Your task to perform on an android device: change timer sound Image 0: 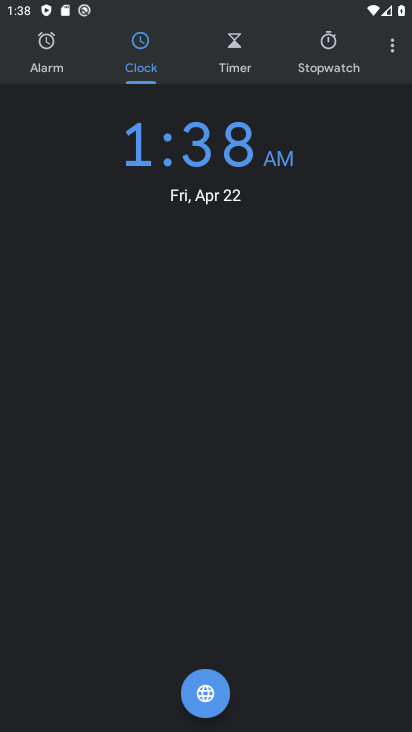
Step 0: click (395, 41)
Your task to perform on an android device: change timer sound Image 1: 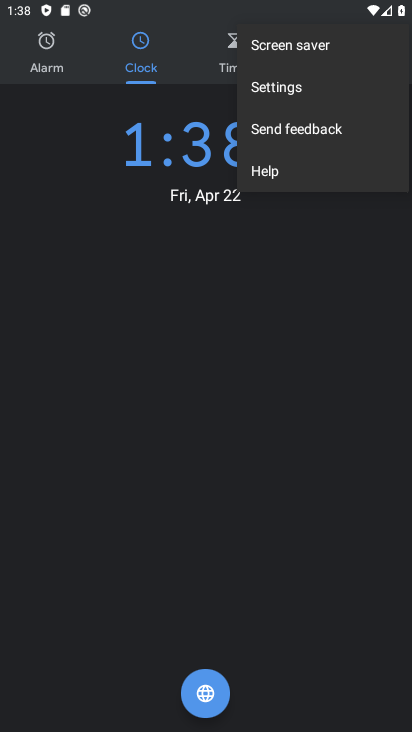
Step 1: click (294, 94)
Your task to perform on an android device: change timer sound Image 2: 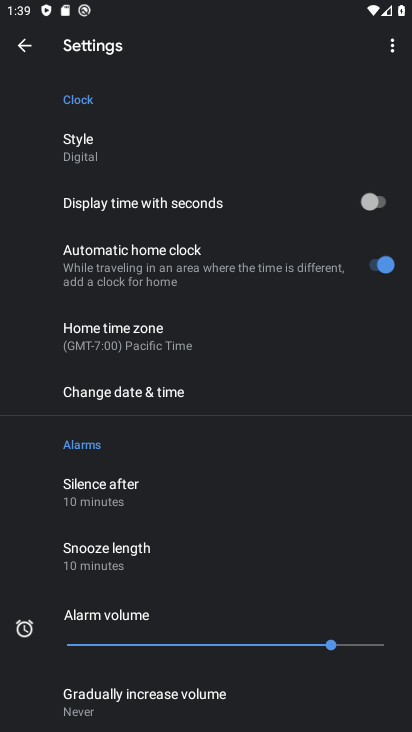
Step 2: drag from (156, 615) to (185, 357)
Your task to perform on an android device: change timer sound Image 3: 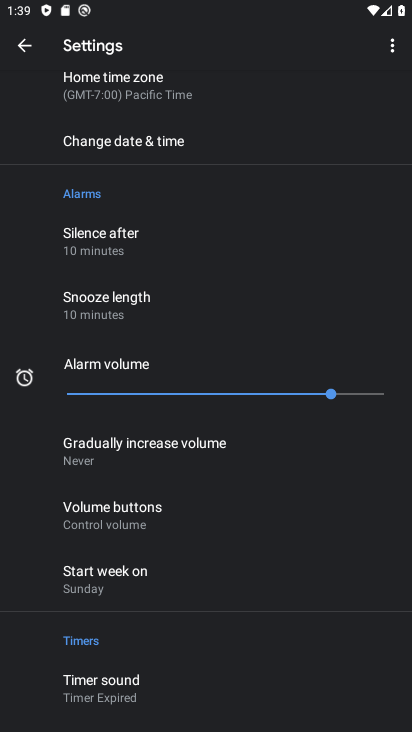
Step 3: click (144, 684)
Your task to perform on an android device: change timer sound Image 4: 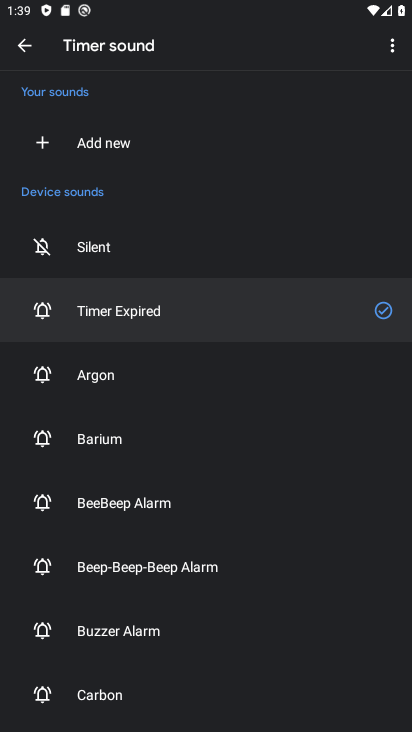
Step 4: click (119, 382)
Your task to perform on an android device: change timer sound Image 5: 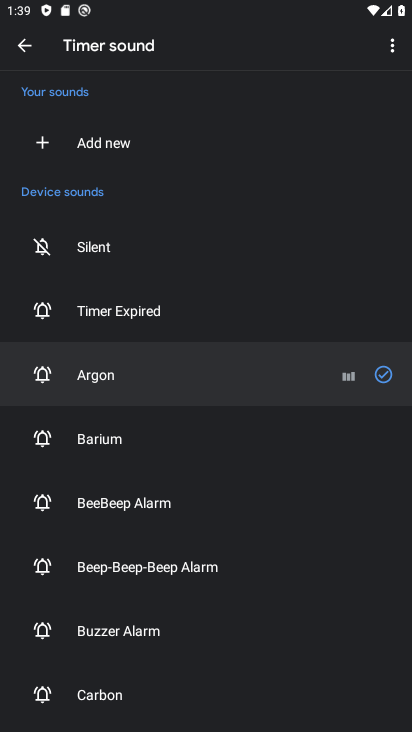
Step 5: task complete